Your task to perform on an android device: Find coffee shops on Maps Image 0: 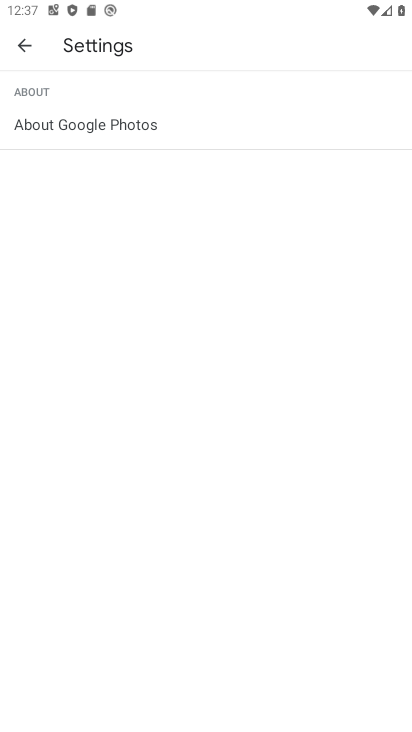
Step 0: press home button
Your task to perform on an android device: Find coffee shops on Maps Image 1: 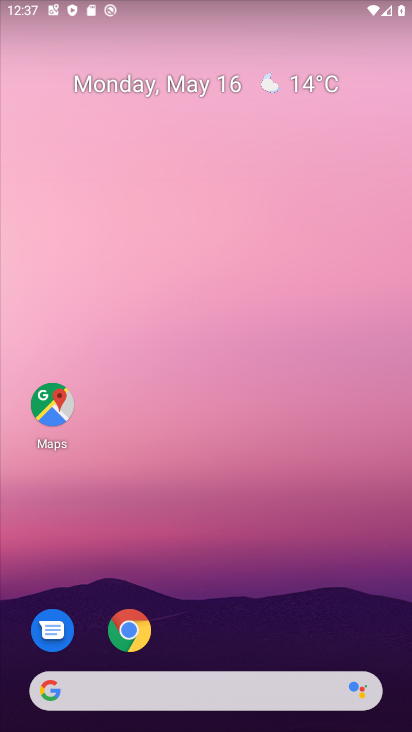
Step 1: click (59, 414)
Your task to perform on an android device: Find coffee shops on Maps Image 2: 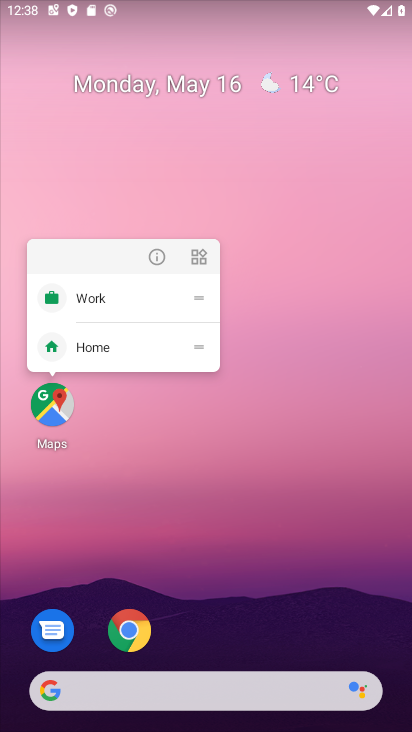
Step 2: click (57, 411)
Your task to perform on an android device: Find coffee shops on Maps Image 3: 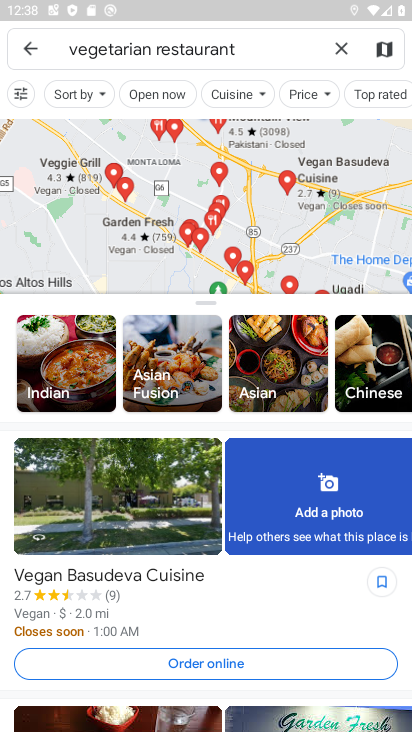
Step 3: click (270, 46)
Your task to perform on an android device: Find coffee shops on Maps Image 4: 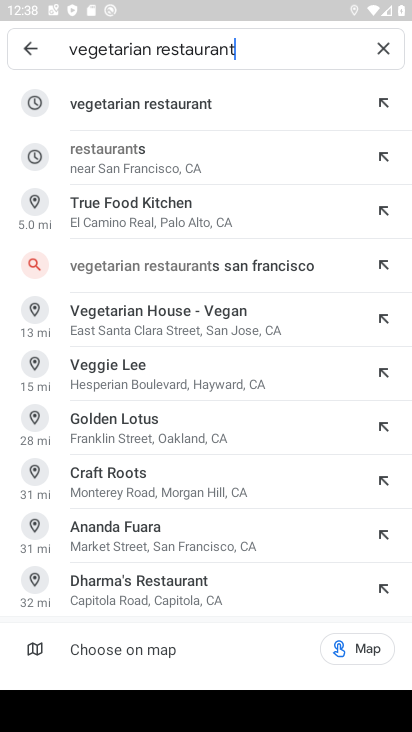
Step 4: click (383, 45)
Your task to perform on an android device: Find coffee shops on Maps Image 5: 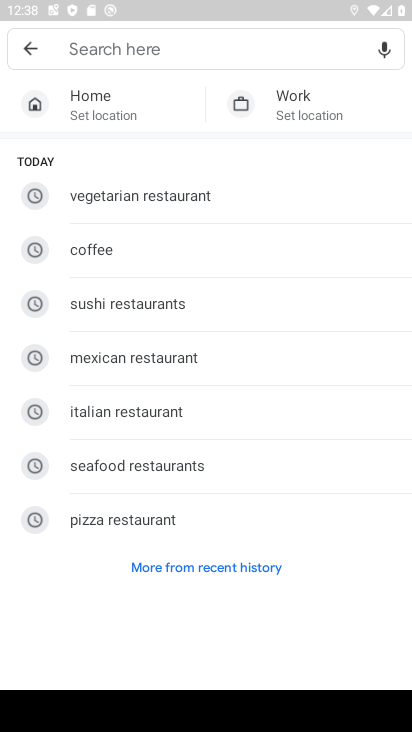
Step 5: click (207, 253)
Your task to perform on an android device: Find coffee shops on Maps Image 6: 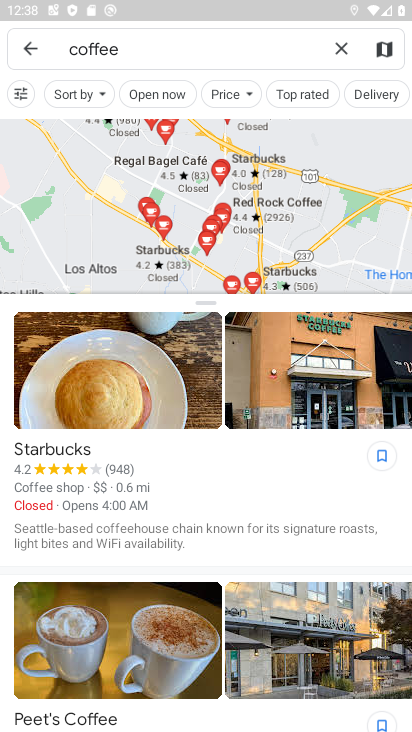
Step 6: task complete